Your task to perform on an android device: Open Google Maps and go to "Timeline" Image 0: 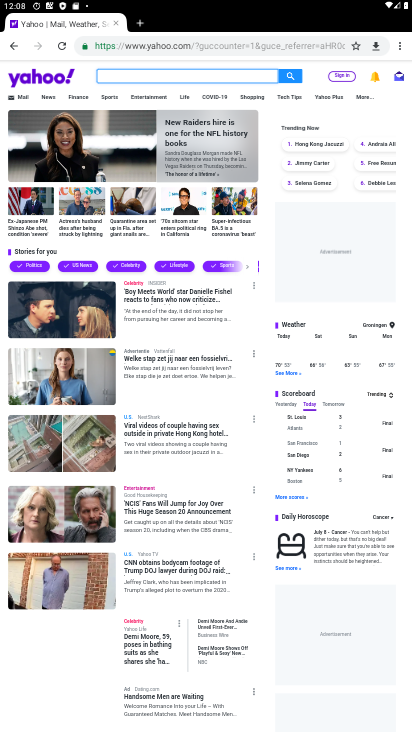
Step 0: press home button
Your task to perform on an android device: Open Google Maps and go to "Timeline" Image 1: 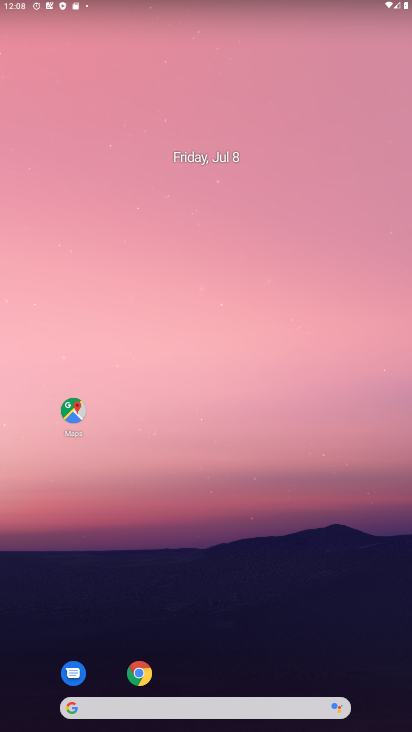
Step 1: click (74, 414)
Your task to perform on an android device: Open Google Maps and go to "Timeline" Image 2: 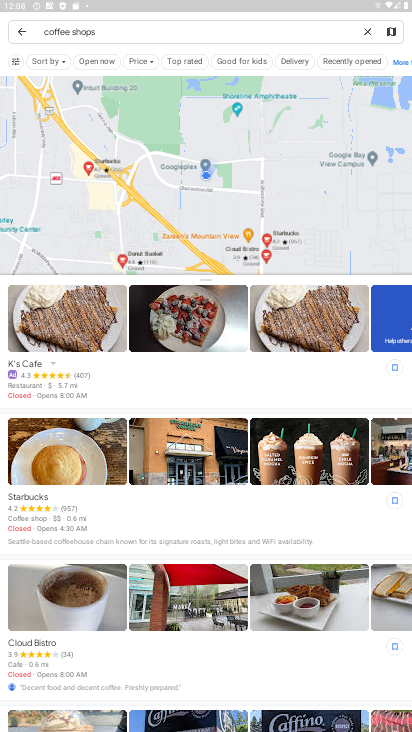
Step 2: press back button
Your task to perform on an android device: Open Google Maps and go to "Timeline" Image 3: 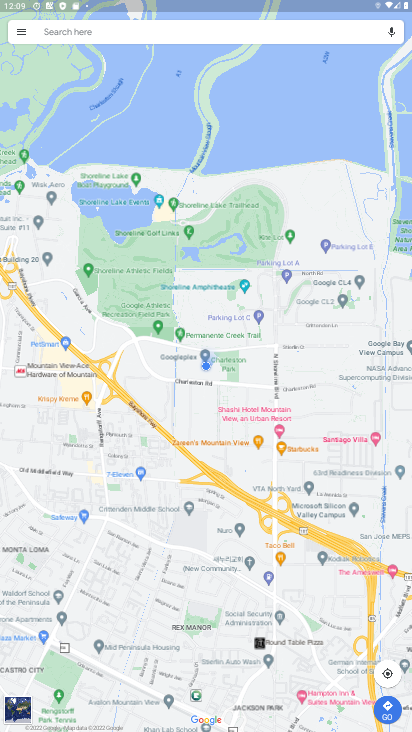
Step 3: click (23, 33)
Your task to perform on an android device: Open Google Maps and go to "Timeline" Image 4: 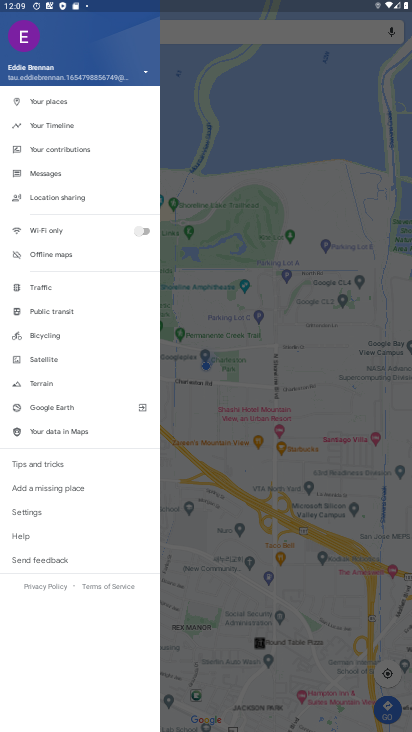
Step 4: click (66, 128)
Your task to perform on an android device: Open Google Maps and go to "Timeline" Image 5: 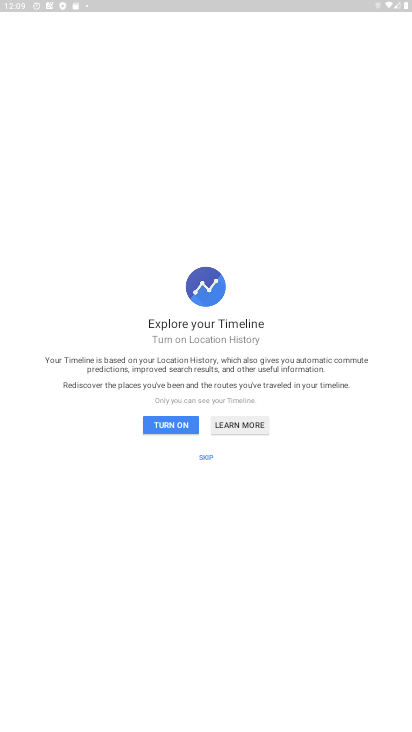
Step 5: click (207, 457)
Your task to perform on an android device: Open Google Maps and go to "Timeline" Image 6: 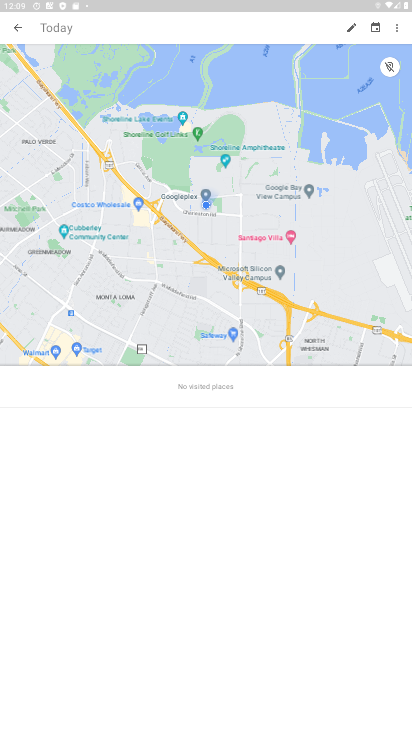
Step 6: task complete